Your task to perform on an android device: What's on my calendar today? Image 0: 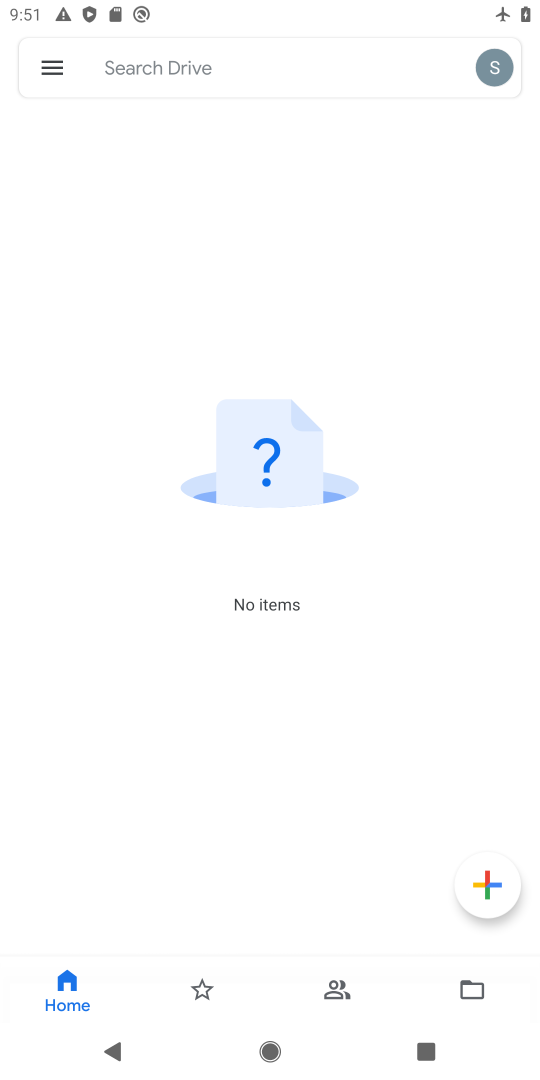
Step 0: press home button
Your task to perform on an android device: What's on my calendar today? Image 1: 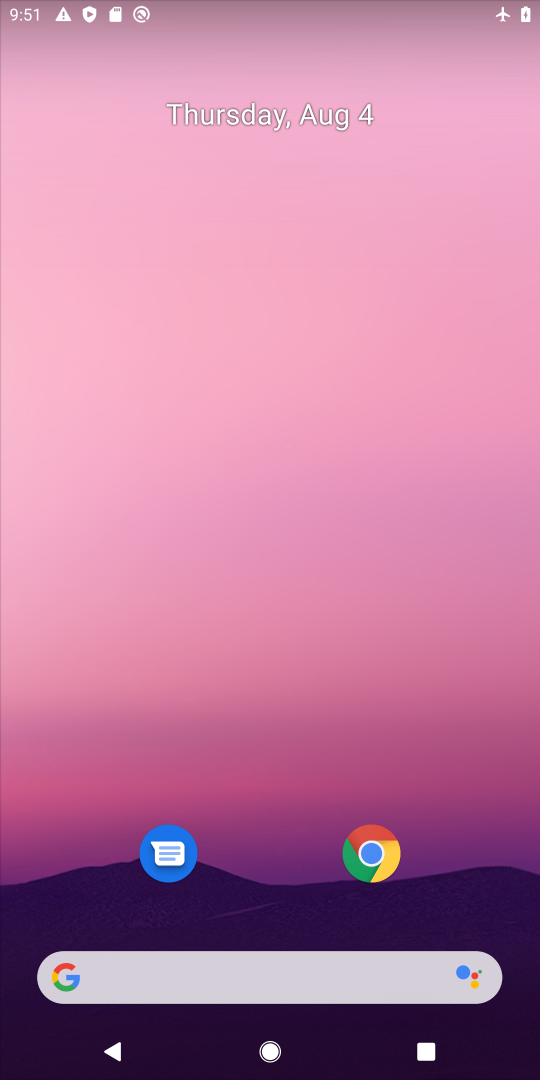
Step 1: drag from (229, 877) to (234, 2)
Your task to perform on an android device: What's on my calendar today? Image 2: 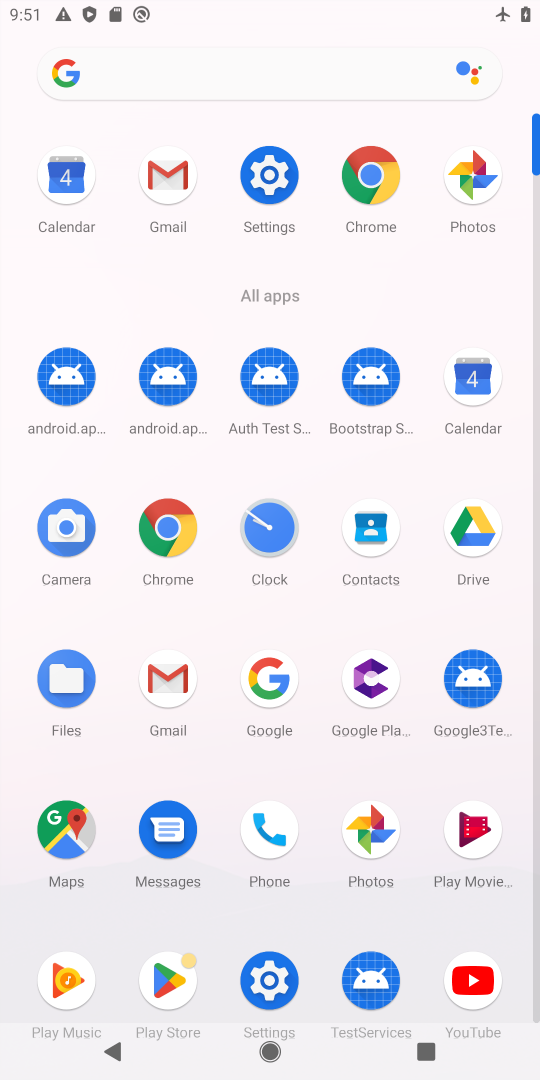
Step 2: click (464, 377)
Your task to perform on an android device: What's on my calendar today? Image 3: 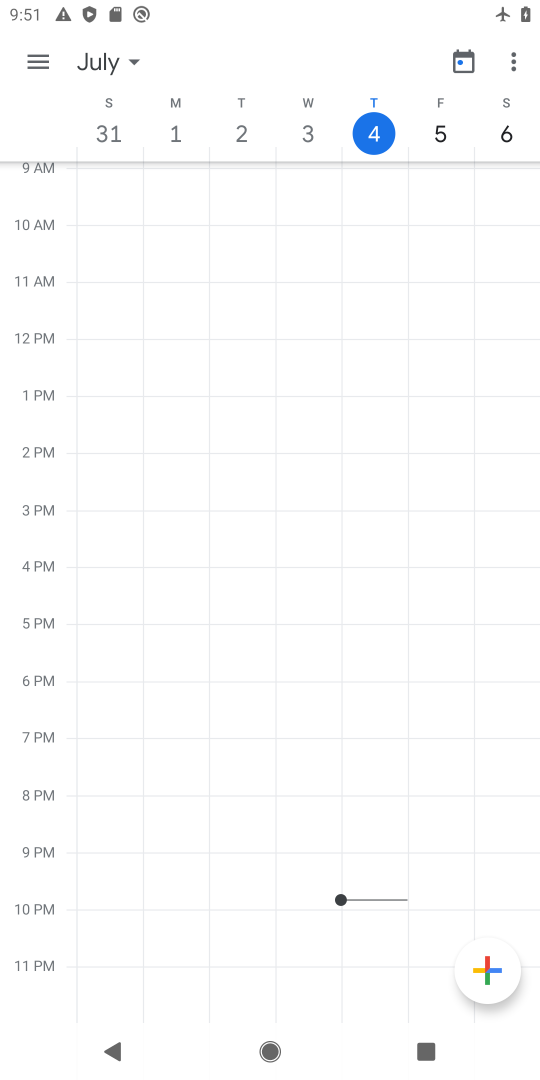
Step 3: click (36, 67)
Your task to perform on an android device: What's on my calendar today? Image 4: 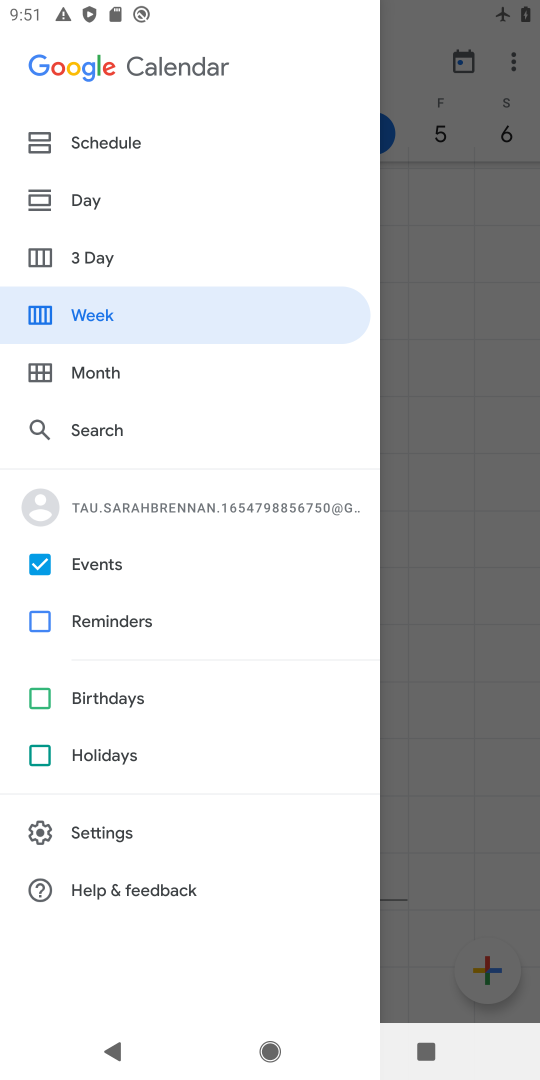
Step 4: click (49, 633)
Your task to perform on an android device: What's on my calendar today? Image 5: 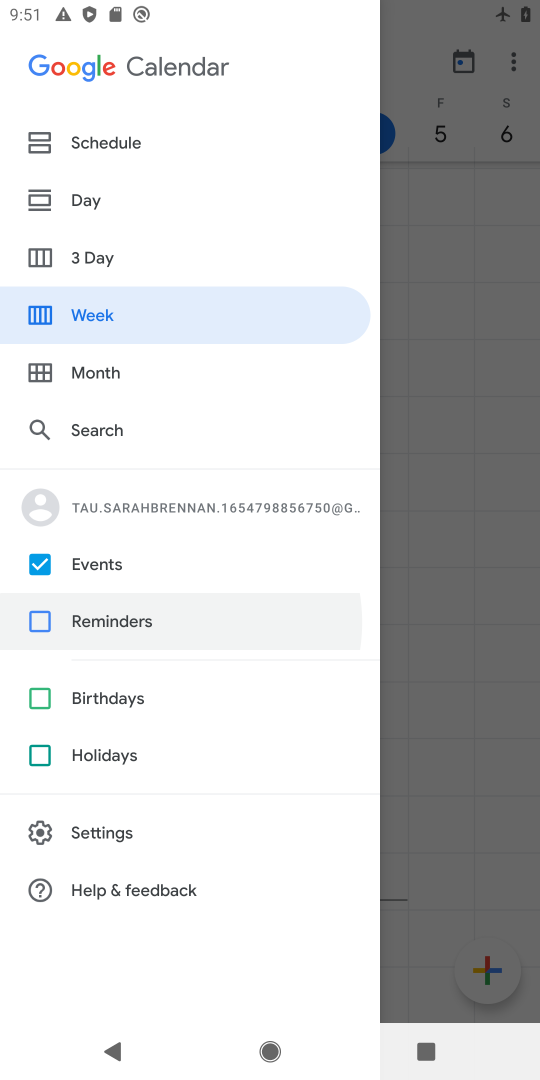
Step 5: click (52, 697)
Your task to perform on an android device: What's on my calendar today? Image 6: 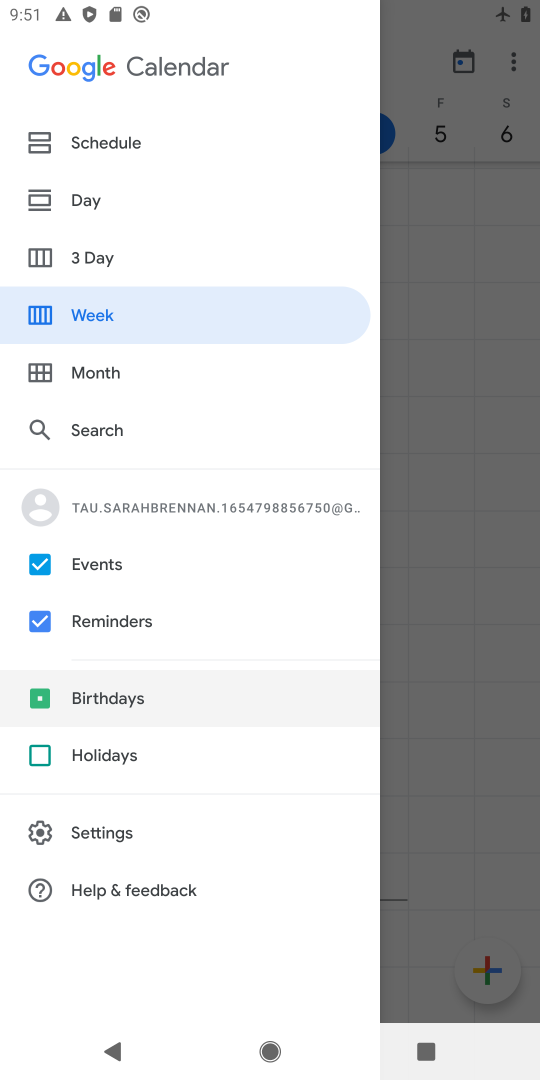
Step 6: click (51, 763)
Your task to perform on an android device: What's on my calendar today? Image 7: 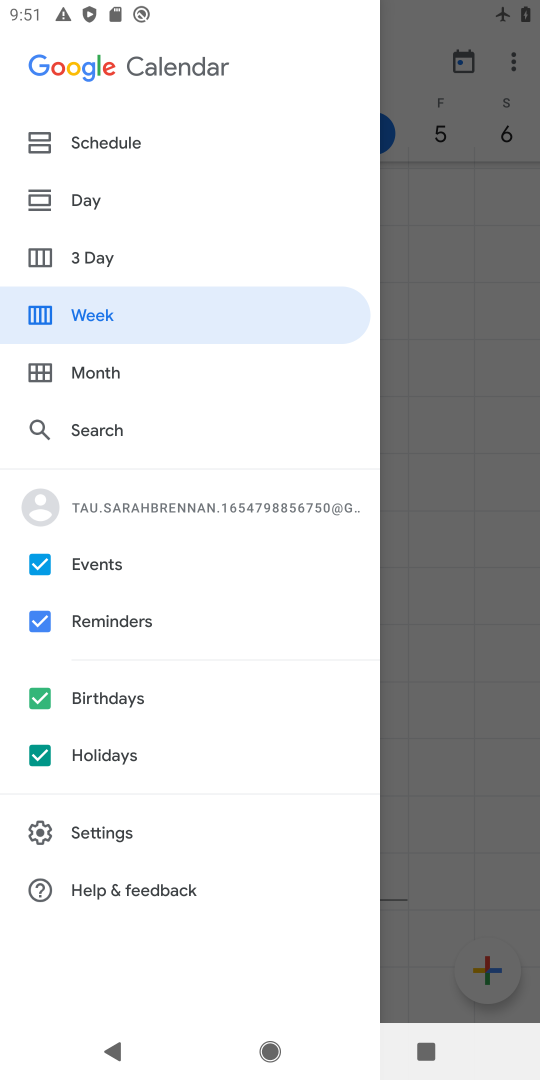
Step 7: click (121, 203)
Your task to perform on an android device: What's on my calendar today? Image 8: 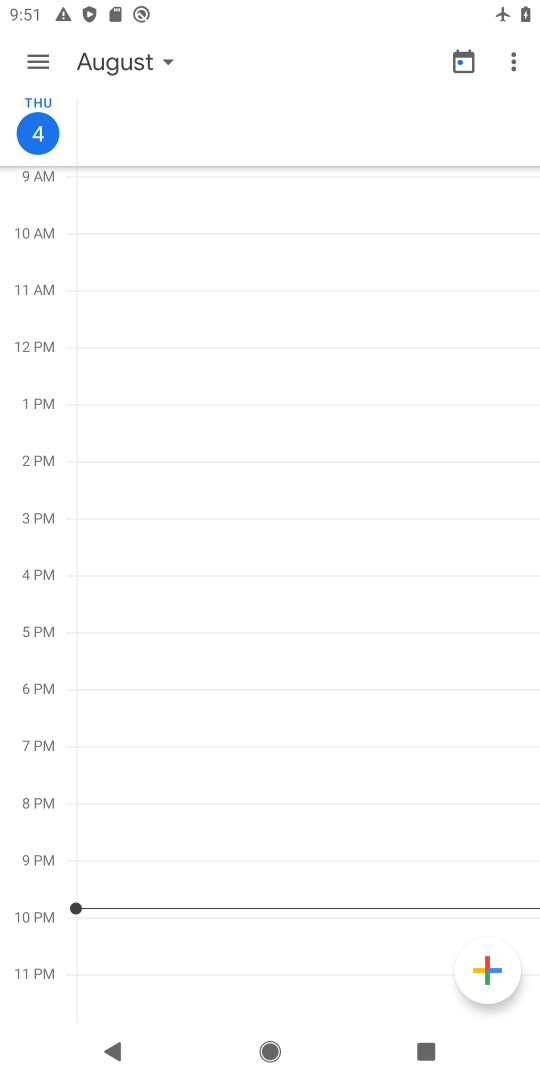
Step 8: task complete